Your task to perform on an android device: turn on showing notifications on the lock screen Image 0: 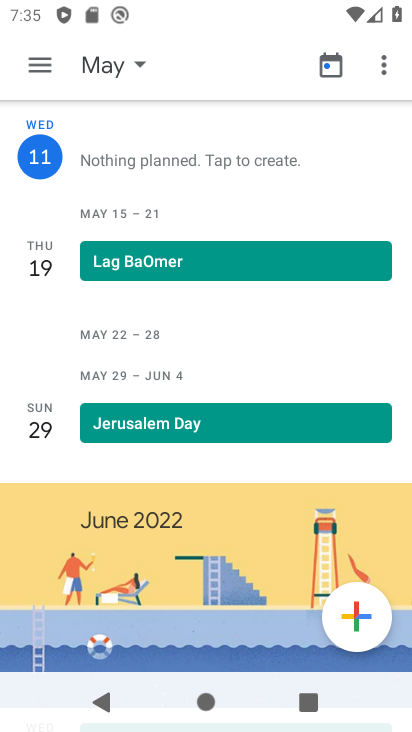
Step 0: press home button
Your task to perform on an android device: turn on showing notifications on the lock screen Image 1: 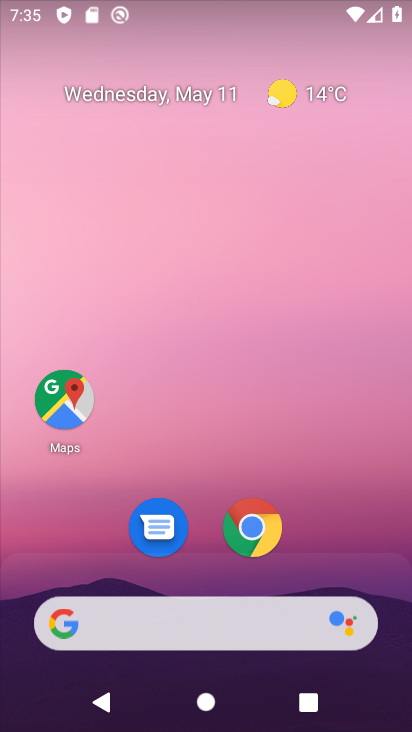
Step 1: drag from (231, 643) to (245, 126)
Your task to perform on an android device: turn on showing notifications on the lock screen Image 2: 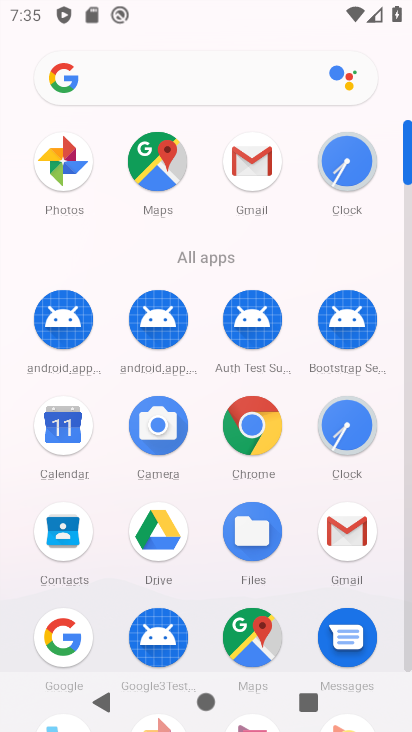
Step 2: drag from (199, 444) to (252, 51)
Your task to perform on an android device: turn on showing notifications on the lock screen Image 3: 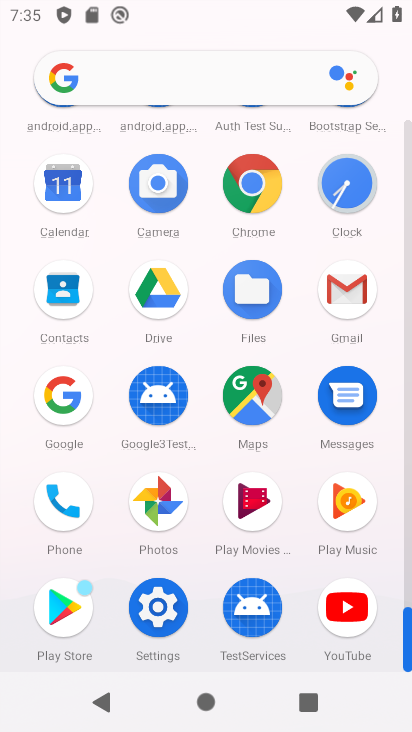
Step 3: click (166, 615)
Your task to perform on an android device: turn on showing notifications on the lock screen Image 4: 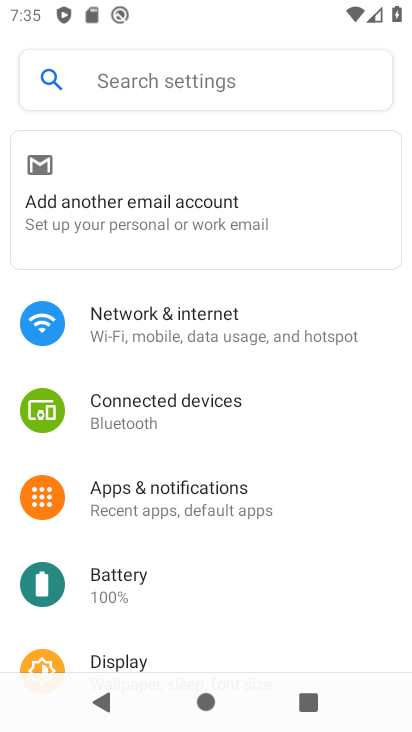
Step 4: click (245, 498)
Your task to perform on an android device: turn on showing notifications on the lock screen Image 5: 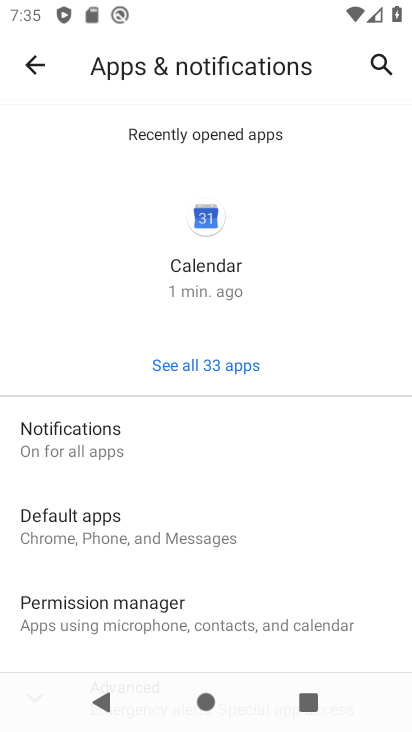
Step 5: click (194, 433)
Your task to perform on an android device: turn on showing notifications on the lock screen Image 6: 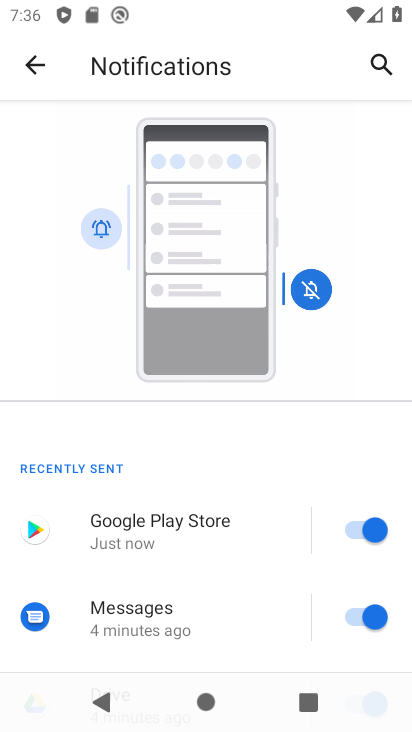
Step 6: drag from (177, 544) to (235, 153)
Your task to perform on an android device: turn on showing notifications on the lock screen Image 7: 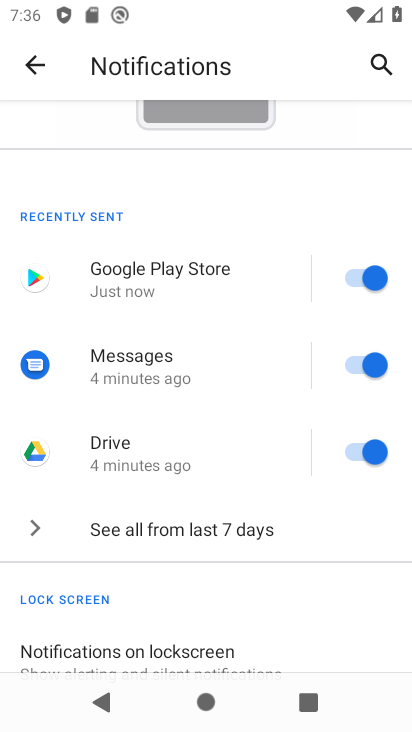
Step 7: click (130, 647)
Your task to perform on an android device: turn on showing notifications on the lock screen Image 8: 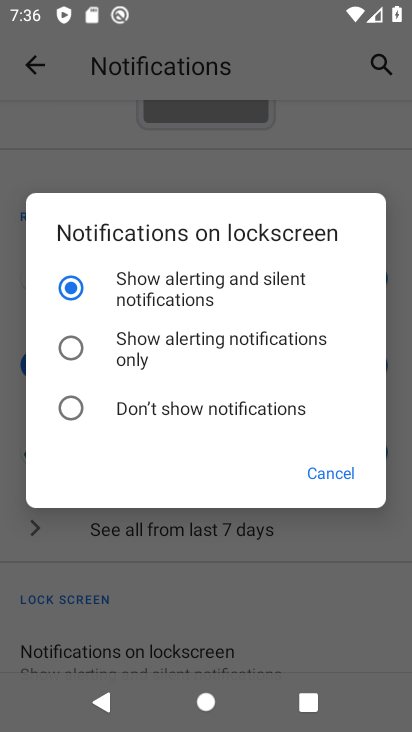
Step 8: task complete